Your task to perform on an android device: change alarm snooze length Image 0: 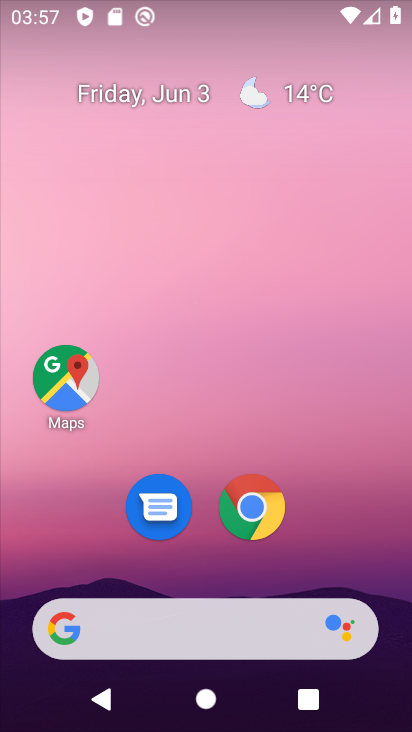
Step 0: press home button
Your task to perform on an android device: change alarm snooze length Image 1: 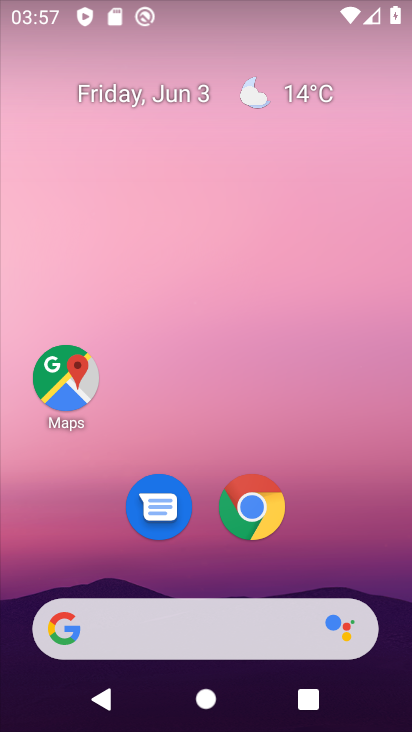
Step 1: drag from (233, 565) to (197, 216)
Your task to perform on an android device: change alarm snooze length Image 2: 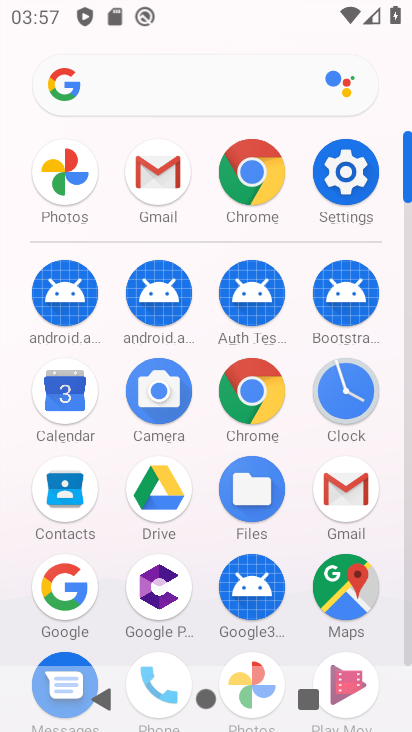
Step 2: click (344, 410)
Your task to perform on an android device: change alarm snooze length Image 3: 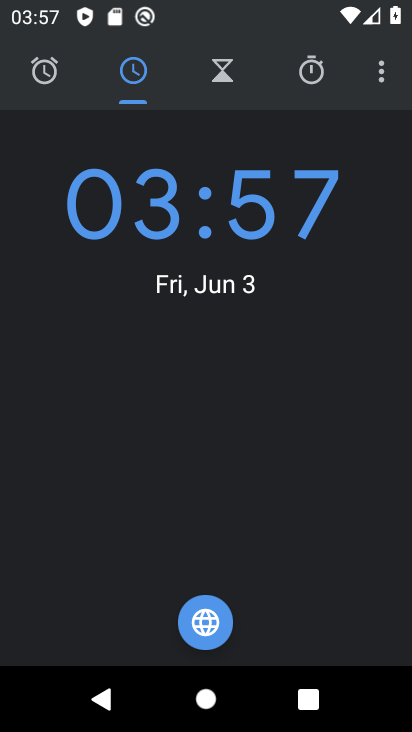
Step 3: click (377, 85)
Your task to perform on an android device: change alarm snooze length Image 4: 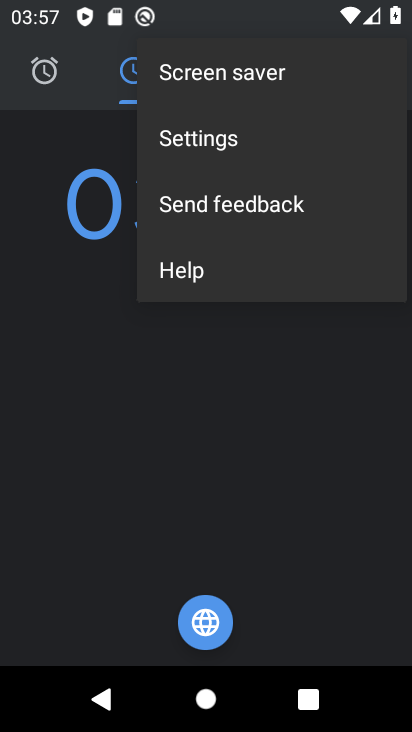
Step 4: click (217, 144)
Your task to perform on an android device: change alarm snooze length Image 5: 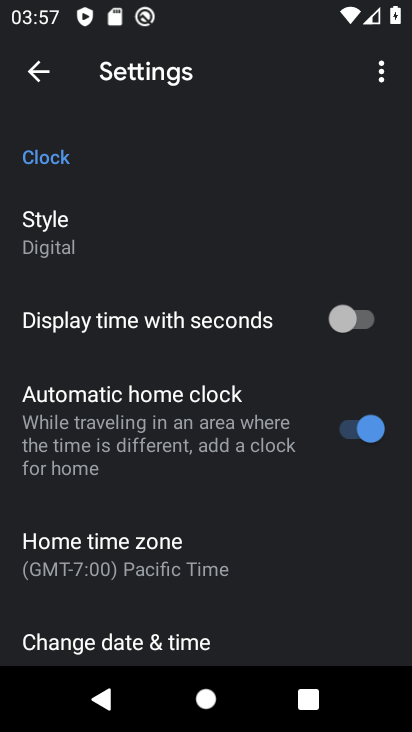
Step 5: drag from (309, 485) to (280, 122)
Your task to perform on an android device: change alarm snooze length Image 6: 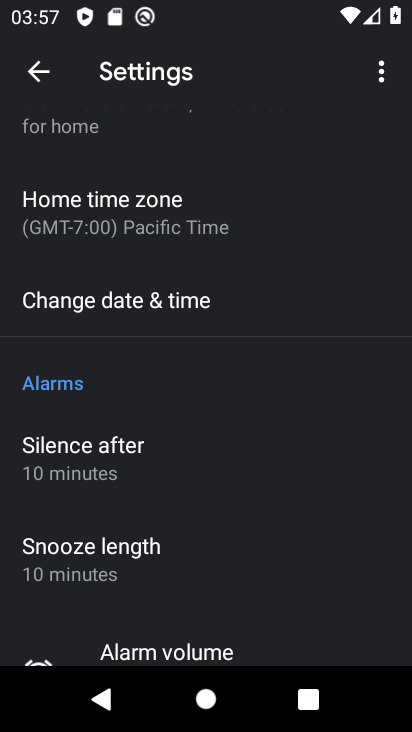
Step 6: click (73, 549)
Your task to perform on an android device: change alarm snooze length Image 7: 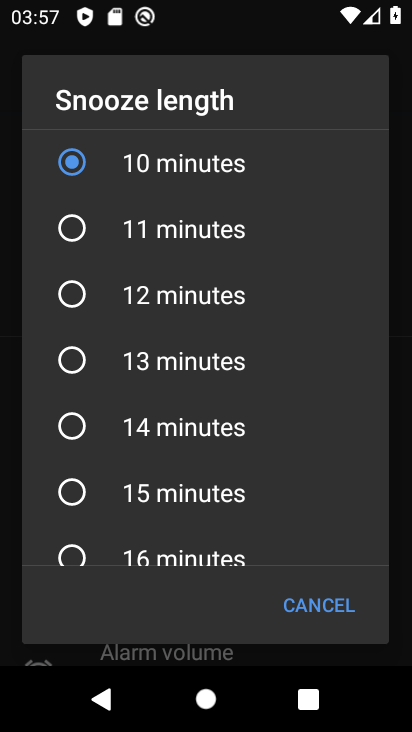
Step 7: click (71, 502)
Your task to perform on an android device: change alarm snooze length Image 8: 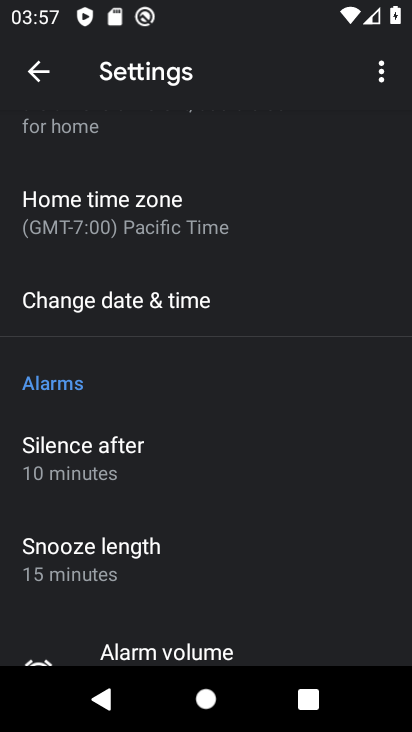
Step 8: task complete